Your task to perform on an android device: turn on the 12-hour format for clock Image 0: 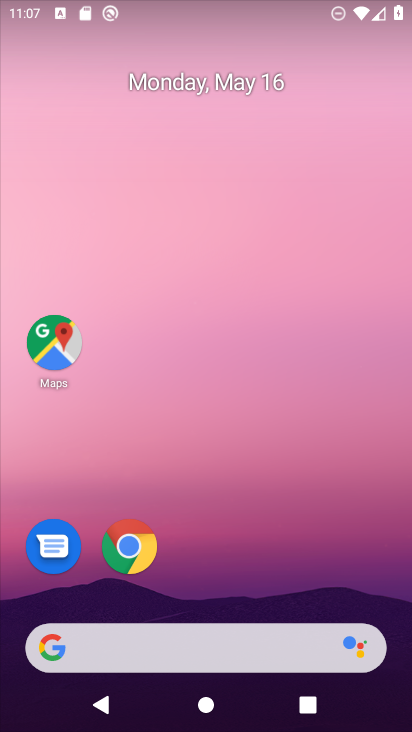
Step 0: drag from (226, 617) to (314, 63)
Your task to perform on an android device: turn on the 12-hour format for clock Image 1: 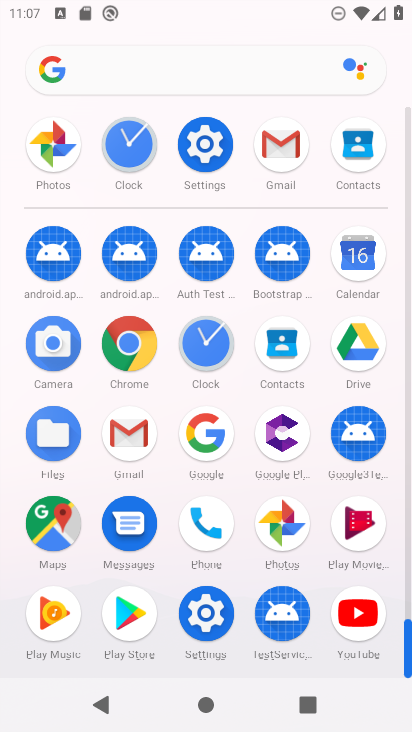
Step 1: click (225, 148)
Your task to perform on an android device: turn on the 12-hour format for clock Image 2: 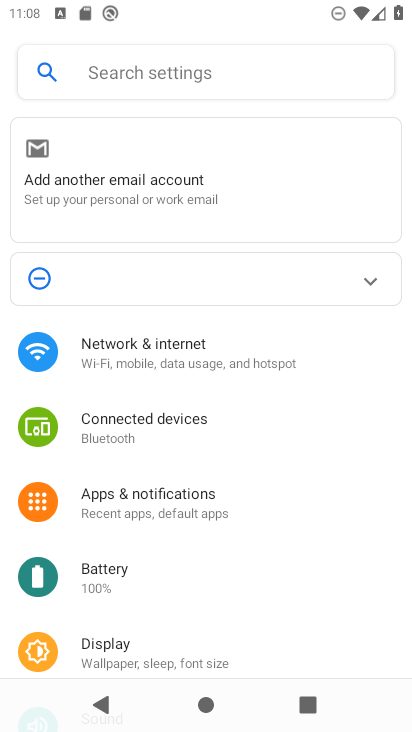
Step 2: task complete